Your task to perform on an android device: toggle data saver in the chrome app Image 0: 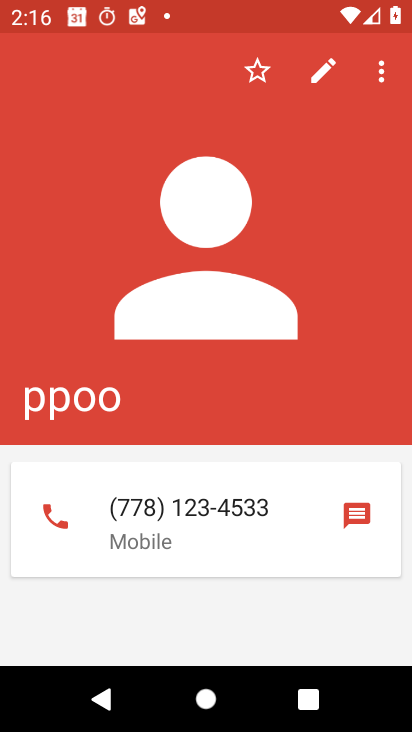
Step 0: press home button
Your task to perform on an android device: toggle data saver in the chrome app Image 1: 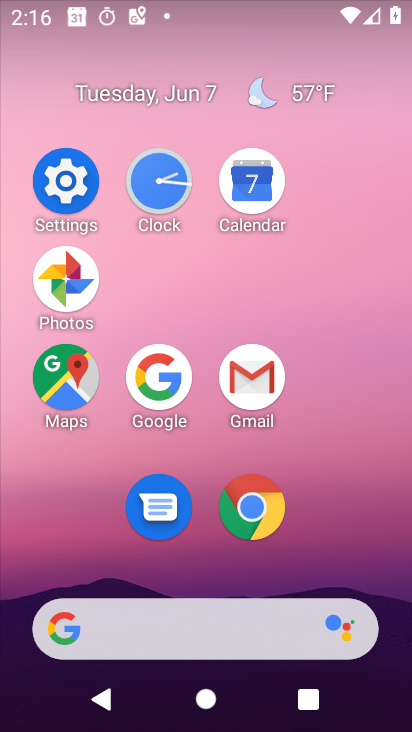
Step 1: click (254, 519)
Your task to perform on an android device: toggle data saver in the chrome app Image 2: 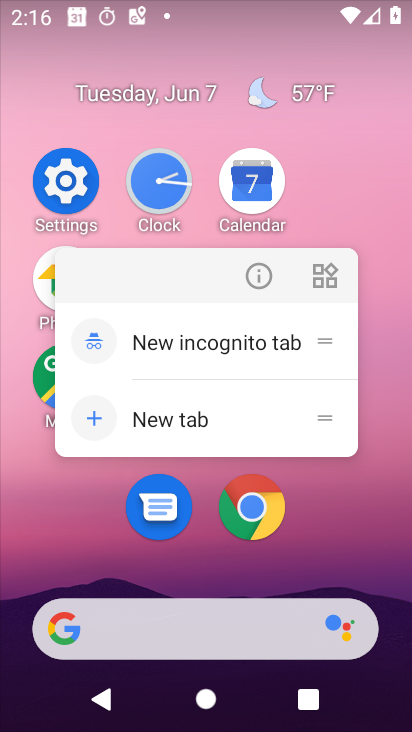
Step 2: click (281, 509)
Your task to perform on an android device: toggle data saver in the chrome app Image 3: 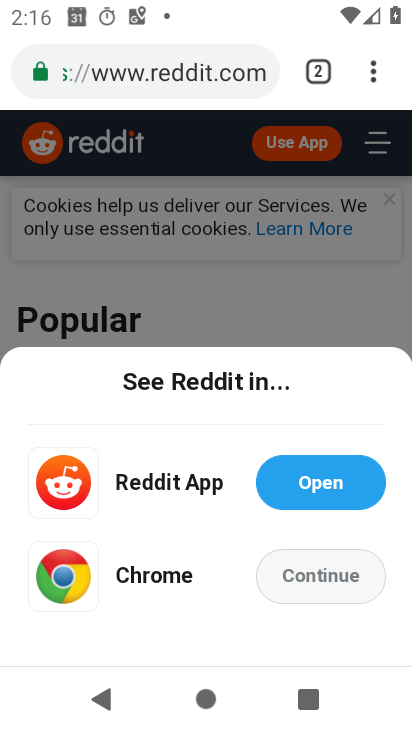
Step 3: click (380, 64)
Your task to perform on an android device: toggle data saver in the chrome app Image 4: 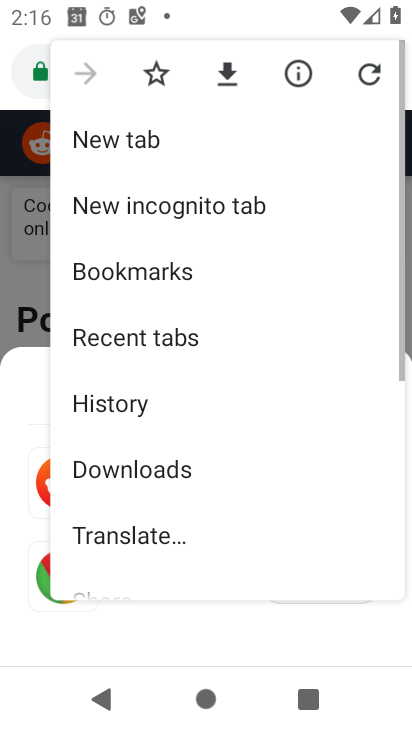
Step 4: drag from (248, 482) to (283, 117)
Your task to perform on an android device: toggle data saver in the chrome app Image 5: 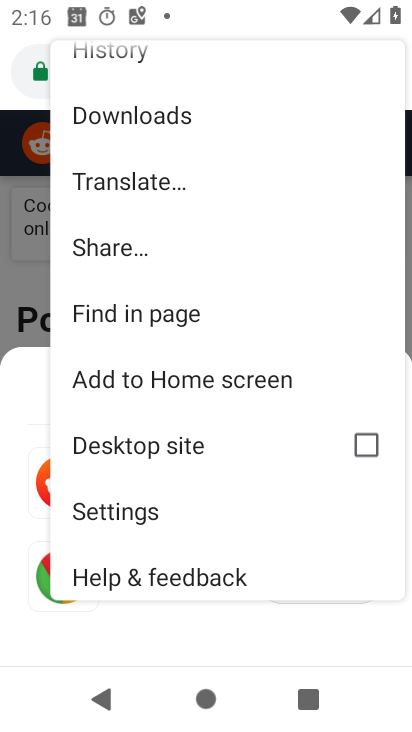
Step 5: click (196, 522)
Your task to perform on an android device: toggle data saver in the chrome app Image 6: 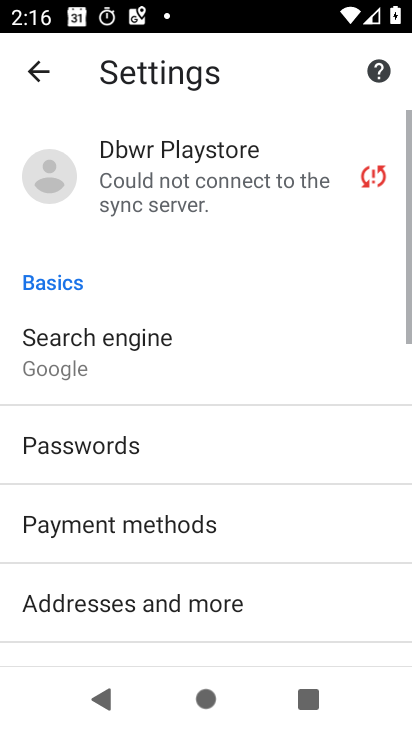
Step 6: drag from (195, 520) to (246, 185)
Your task to perform on an android device: toggle data saver in the chrome app Image 7: 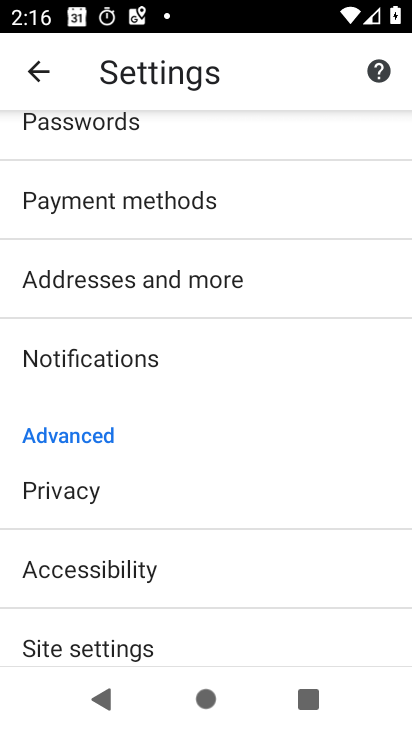
Step 7: drag from (216, 439) to (251, 194)
Your task to perform on an android device: toggle data saver in the chrome app Image 8: 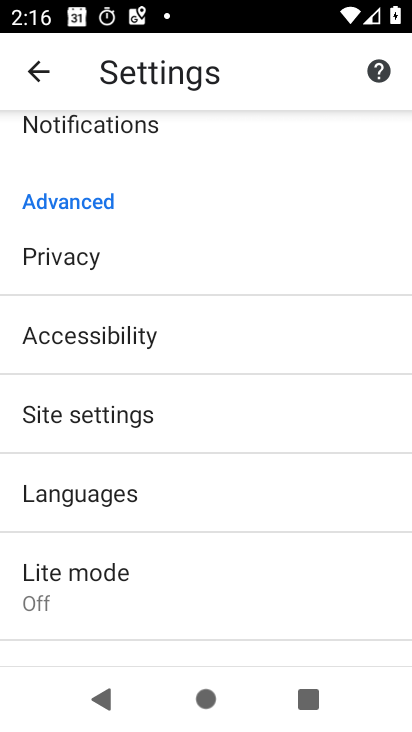
Step 8: click (205, 552)
Your task to perform on an android device: toggle data saver in the chrome app Image 9: 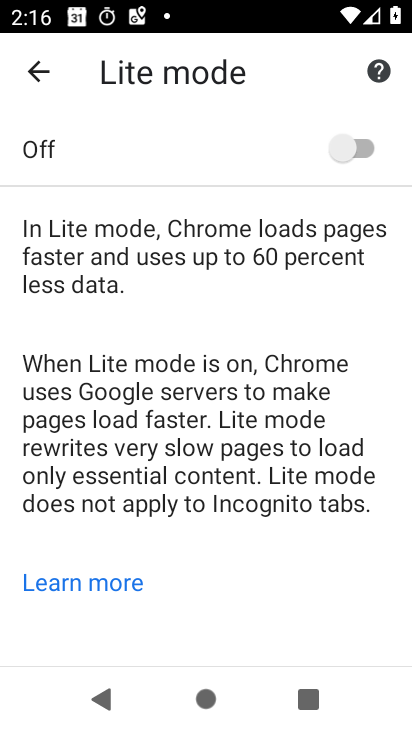
Step 9: click (345, 146)
Your task to perform on an android device: toggle data saver in the chrome app Image 10: 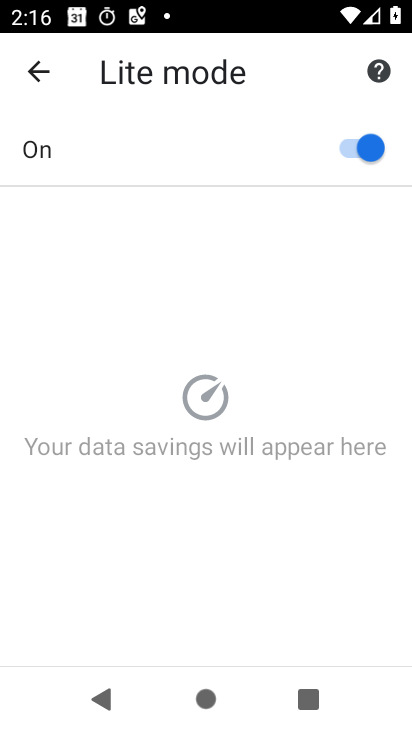
Step 10: task complete